Your task to perform on an android device: turn on the 12-hour format for clock Image 0: 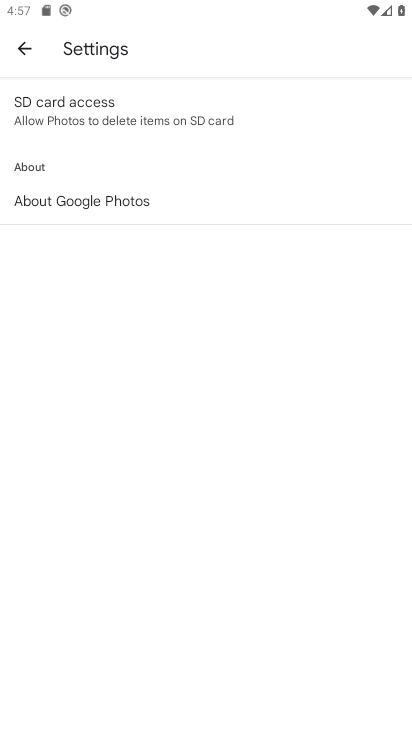
Step 0: press back button
Your task to perform on an android device: turn on the 12-hour format for clock Image 1: 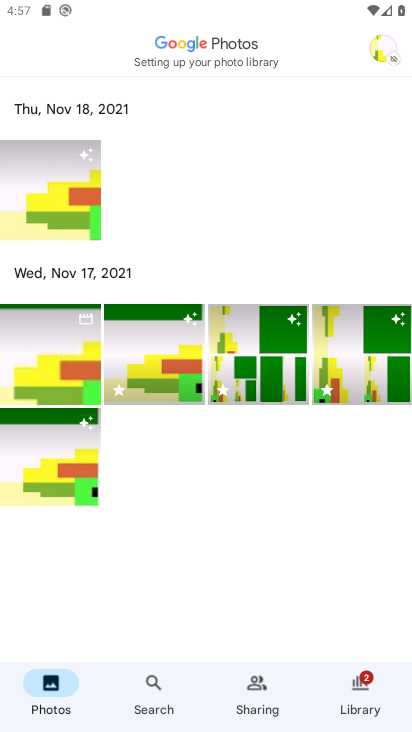
Step 1: press home button
Your task to perform on an android device: turn on the 12-hour format for clock Image 2: 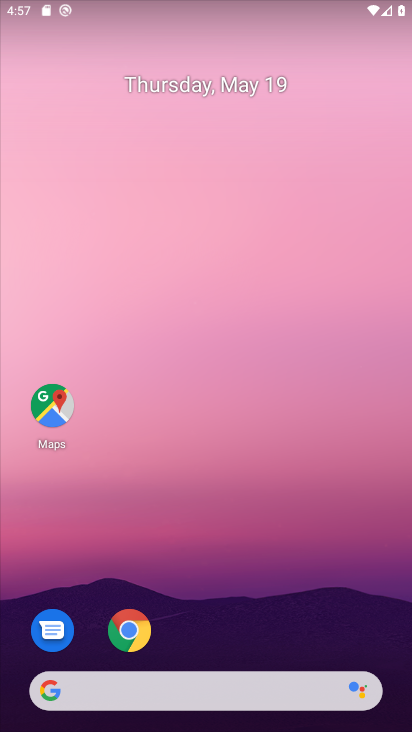
Step 2: drag from (323, 533) to (314, 72)
Your task to perform on an android device: turn on the 12-hour format for clock Image 3: 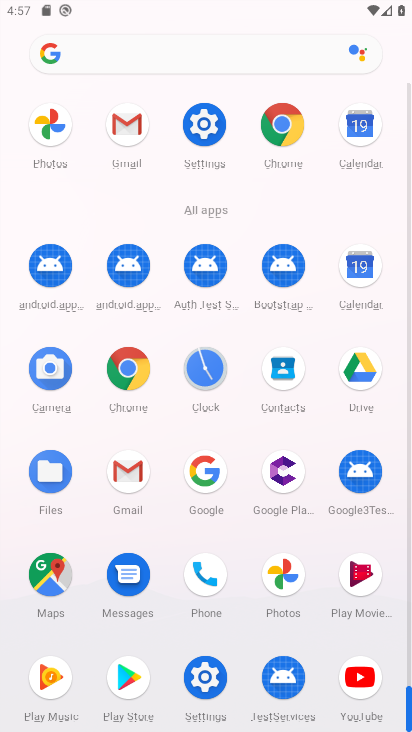
Step 3: drag from (0, 588) to (32, 187)
Your task to perform on an android device: turn on the 12-hour format for clock Image 4: 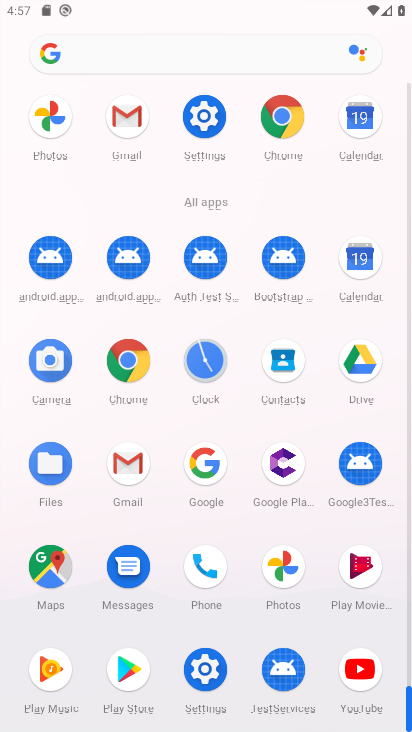
Step 4: click (200, 359)
Your task to perform on an android device: turn on the 12-hour format for clock Image 5: 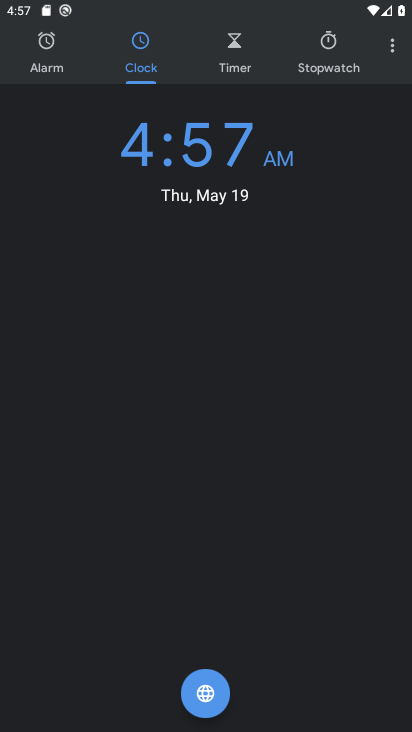
Step 5: drag from (385, 37) to (331, 80)
Your task to perform on an android device: turn on the 12-hour format for clock Image 6: 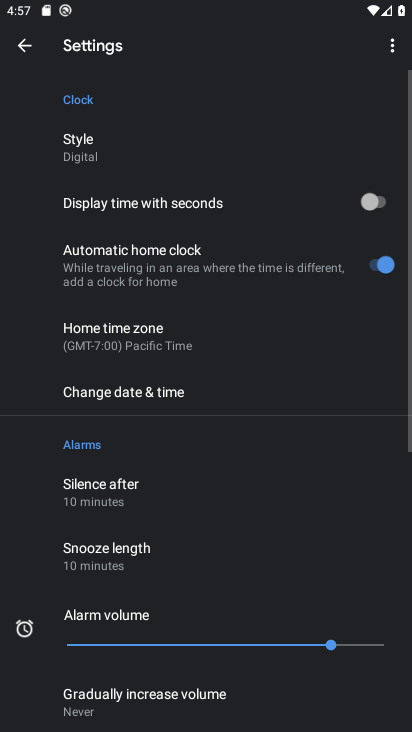
Step 6: click (174, 381)
Your task to perform on an android device: turn on the 12-hour format for clock Image 7: 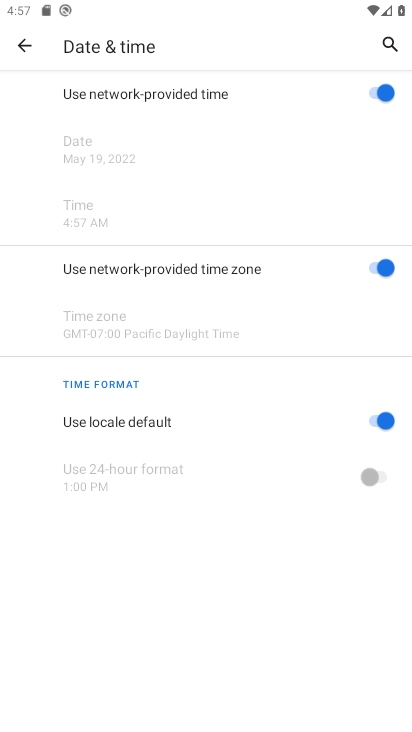
Step 7: task complete